Your task to perform on an android device: Open privacy settings Image 0: 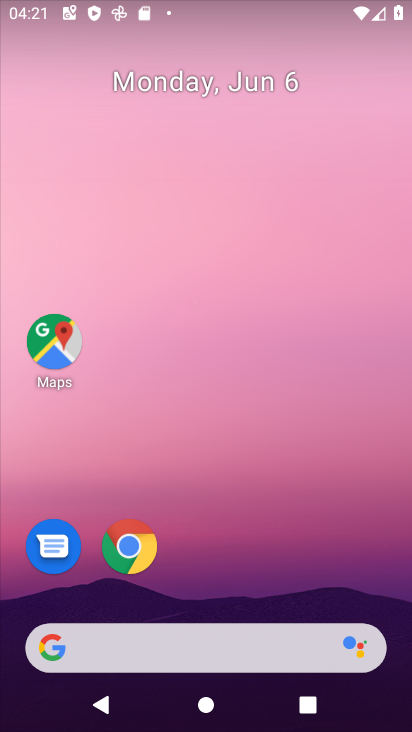
Step 0: drag from (280, 579) to (252, 12)
Your task to perform on an android device: Open privacy settings Image 1: 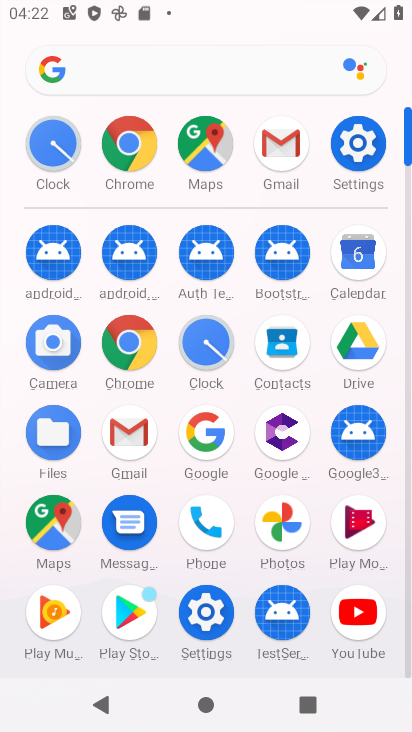
Step 1: click (346, 164)
Your task to perform on an android device: Open privacy settings Image 2: 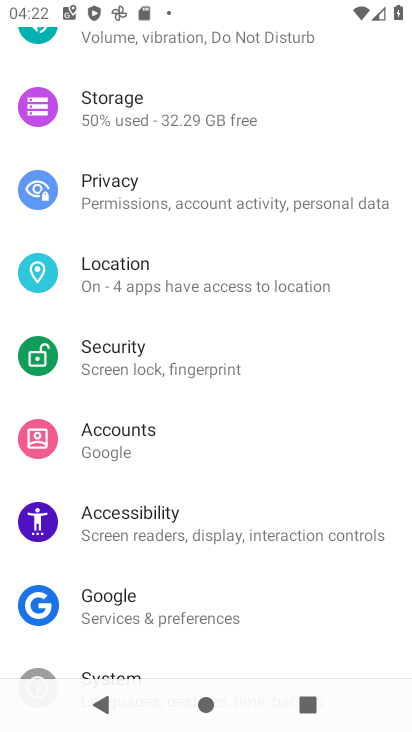
Step 2: click (175, 211)
Your task to perform on an android device: Open privacy settings Image 3: 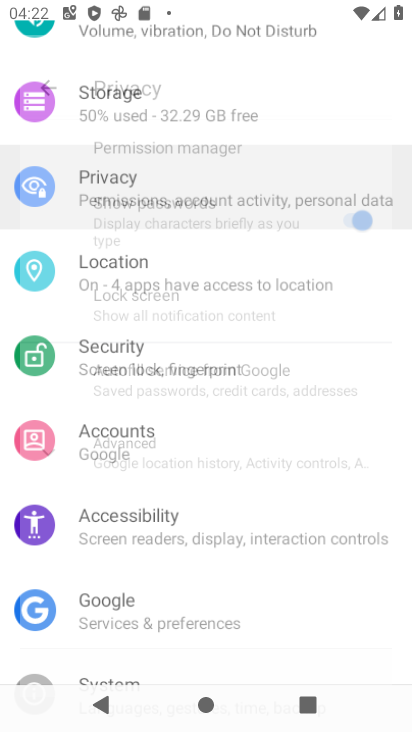
Step 3: task complete